Your task to perform on an android device: What's the weather today? Image 0: 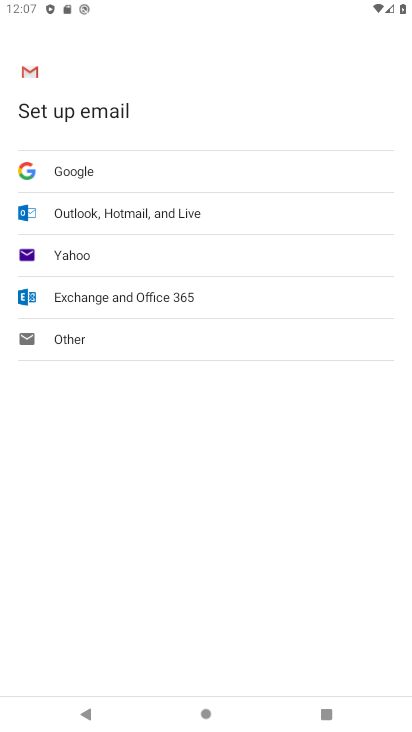
Step 0: press home button
Your task to perform on an android device: What's the weather today? Image 1: 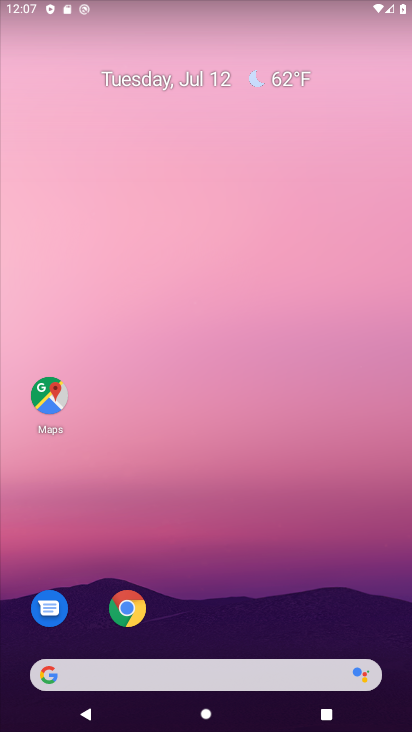
Step 1: drag from (301, 604) to (282, 129)
Your task to perform on an android device: What's the weather today? Image 2: 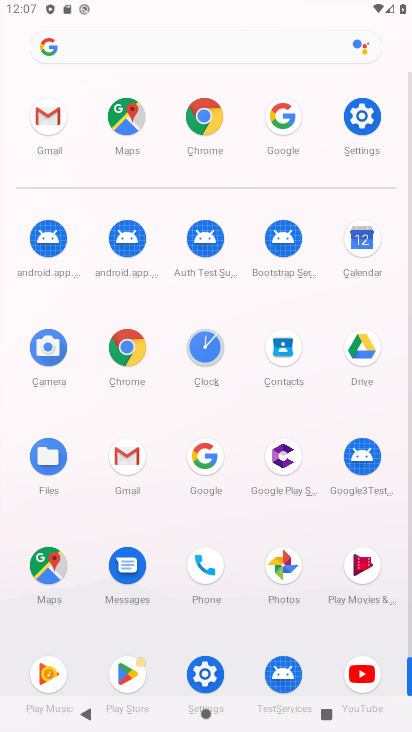
Step 2: click (283, 117)
Your task to perform on an android device: What's the weather today? Image 3: 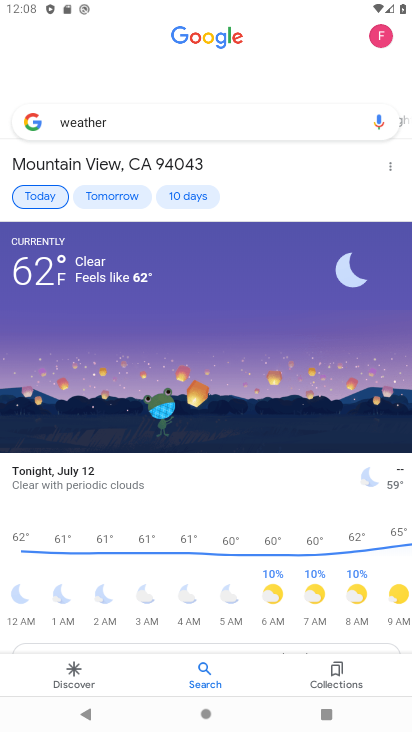
Step 3: task complete